Your task to perform on an android device: Go to Amazon Image 0: 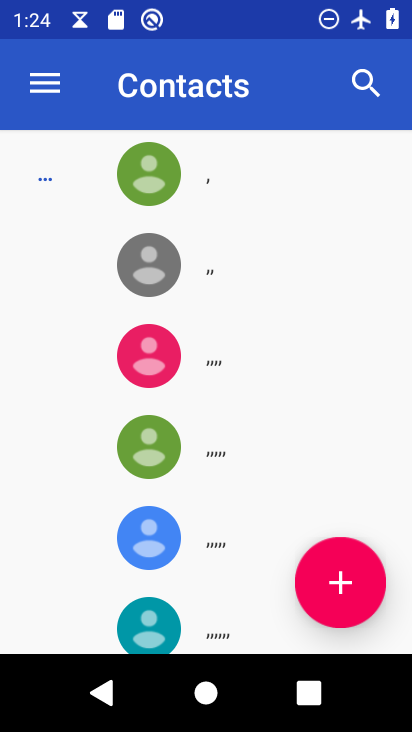
Step 0: press home button
Your task to perform on an android device: Go to Amazon Image 1: 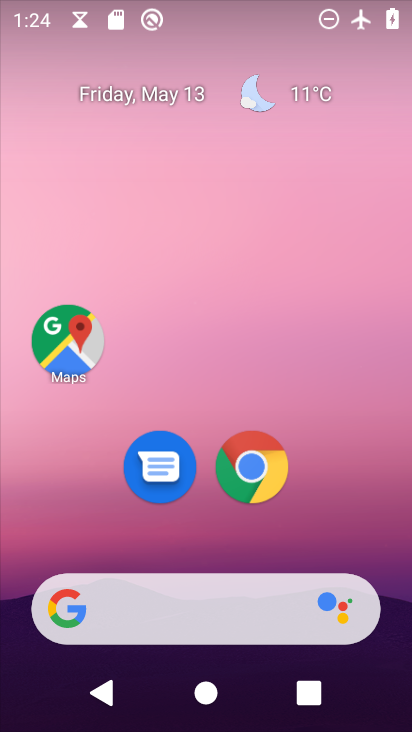
Step 1: click (264, 478)
Your task to perform on an android device: Go to Amazon Image 2: 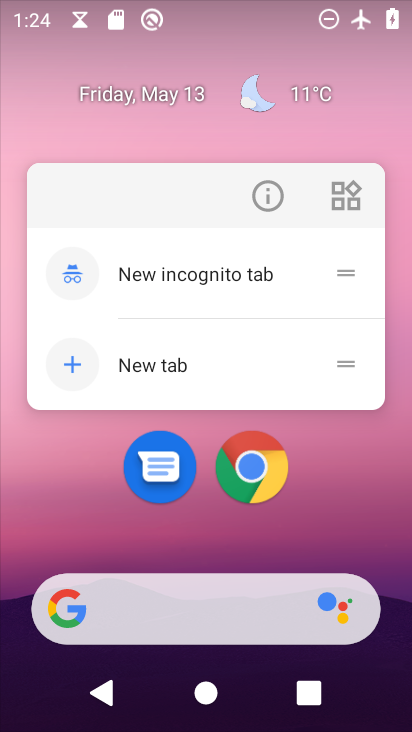
Step 2: click (254, 471)
Your task to perform on an android device: Go to Amazon Image 3: 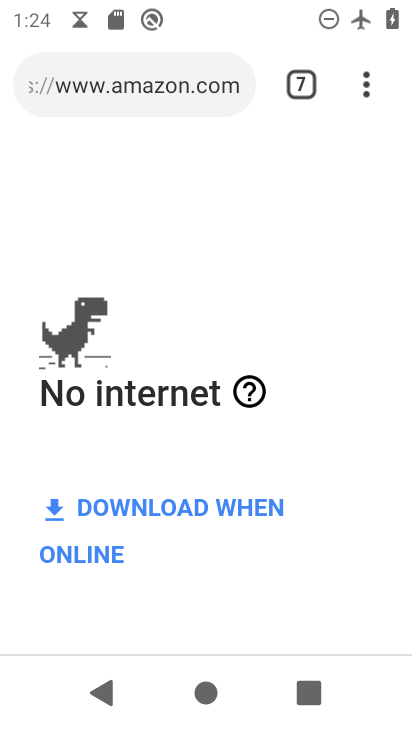
Step 3: task complete